Your task to perform on an android device: Show me the alarms in the clock app Image 0: 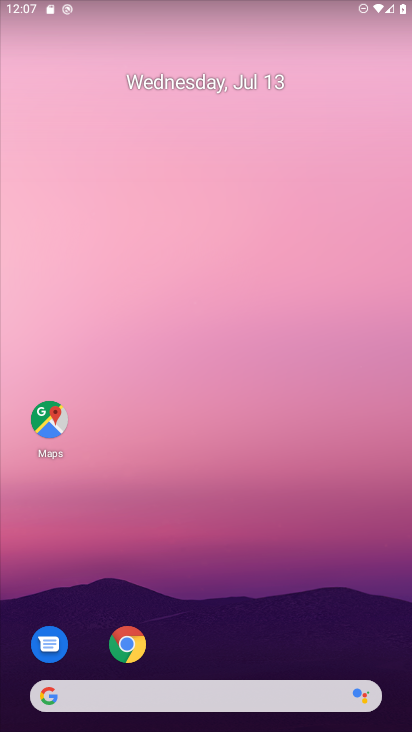
Step 0: drag from (142, 722) to (258, 28)
Your task to perform on an android device: Show me the alarms in the clock app Image 1: 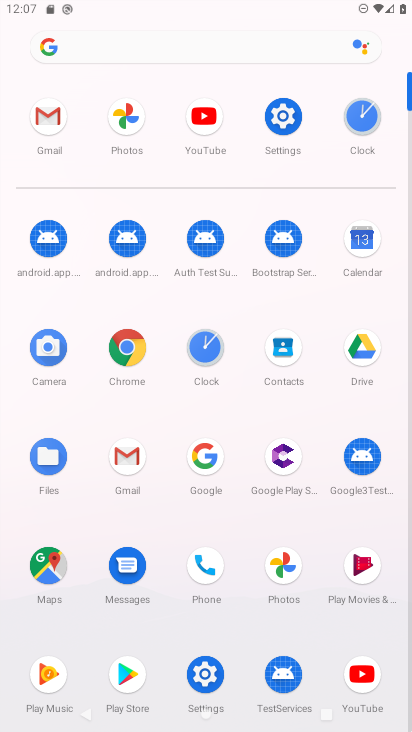
Step 1: click (359, 118)
Your task to perform on an android device: Show me the alarms in the clock app Image 2: 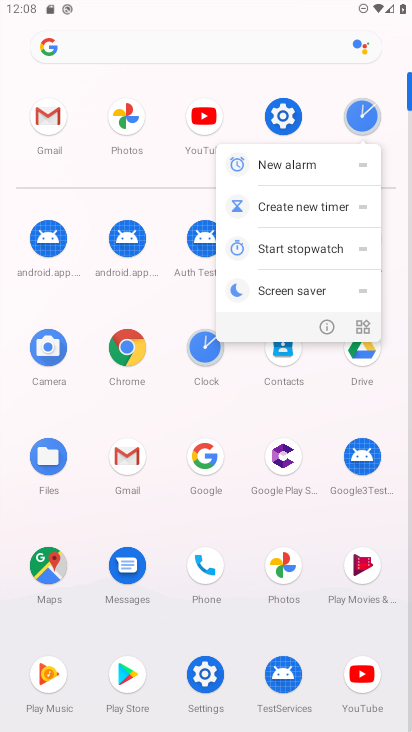
Step 2: click (363, 114)
Your task to perform on an android device: Show me the alarms in the clock app Image 3: 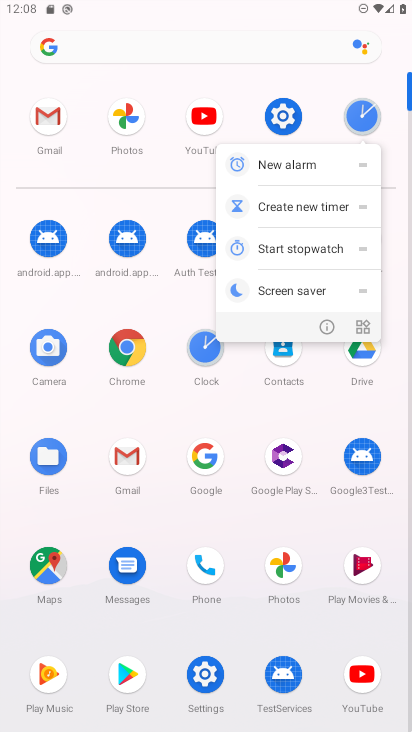
Step 3: click (363, 114)
Your task to perform on an android device: Show me the alarms in the clock app Image 4: 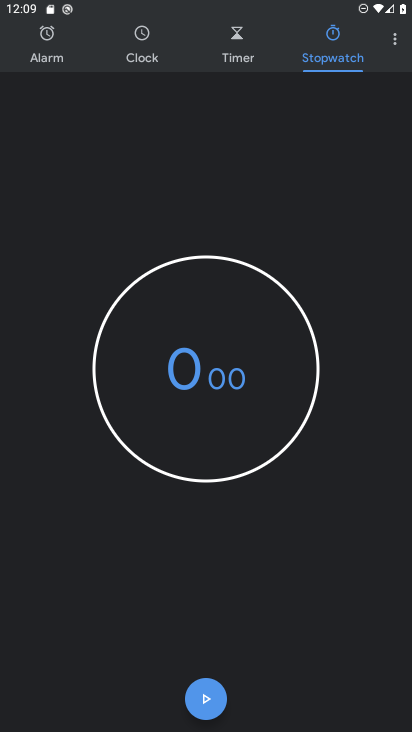
Step 4: click (41, 45)
Your task to perform on an android device: Show me the alarms in the clock app Image 5: 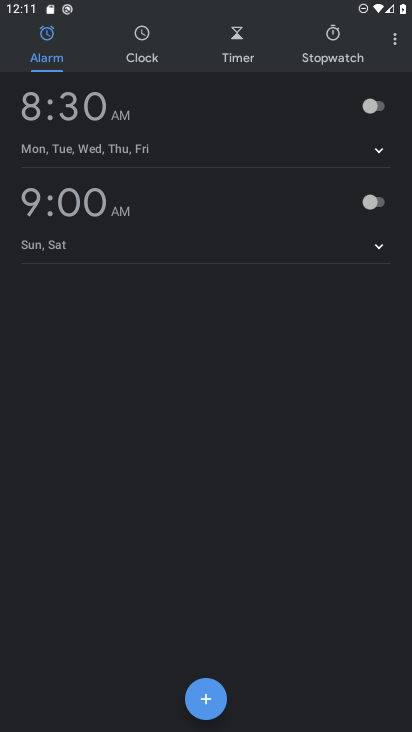
Step 5: task complete